Your task to perform on an android device: choose inbox layout in the gmail app Image 0: 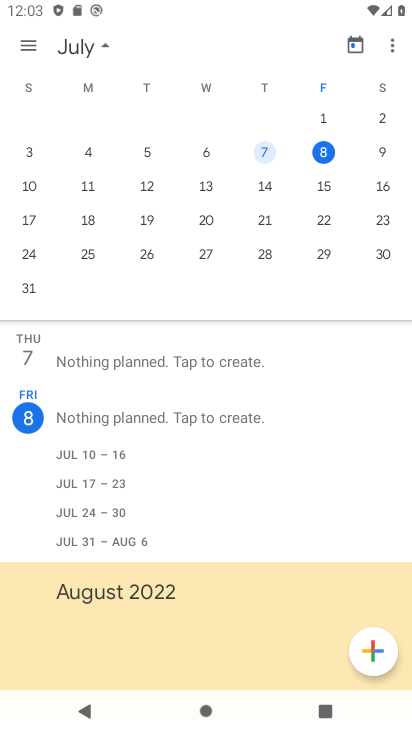
Step 0: press home button
Your task to perform on an android device: choose inbox layout in the gmail app Image 1: 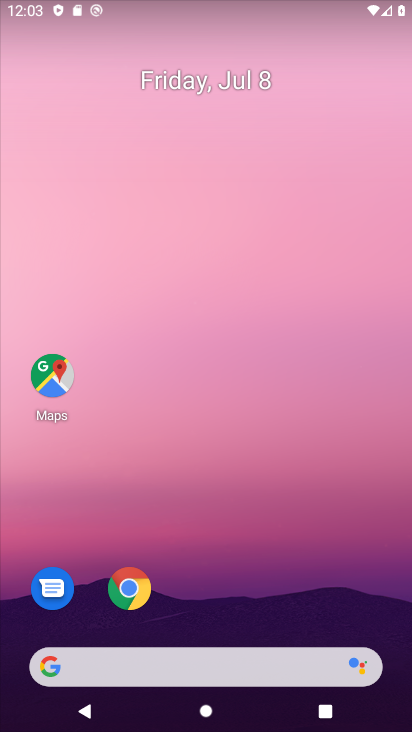
Step 1: drag from (166, 355) to (213, 59)
Your task to perform on an android device: choose inbox layout in the gmail app Image 2: 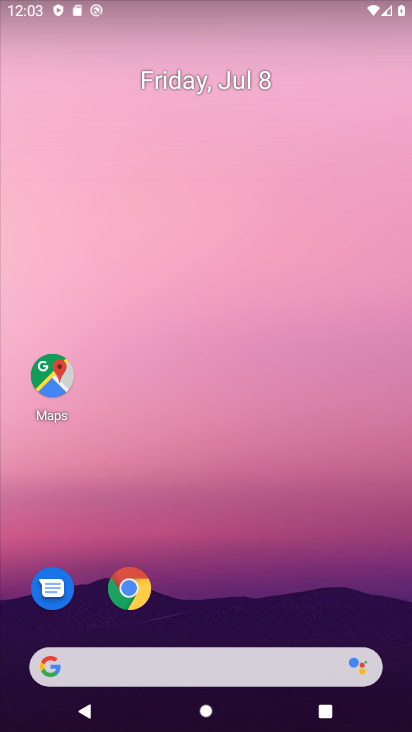
Step 2: drag from (189, 469) to (189, 57)
Your task to perform on an android device: choose inbox layout in the gmail app Image 3: 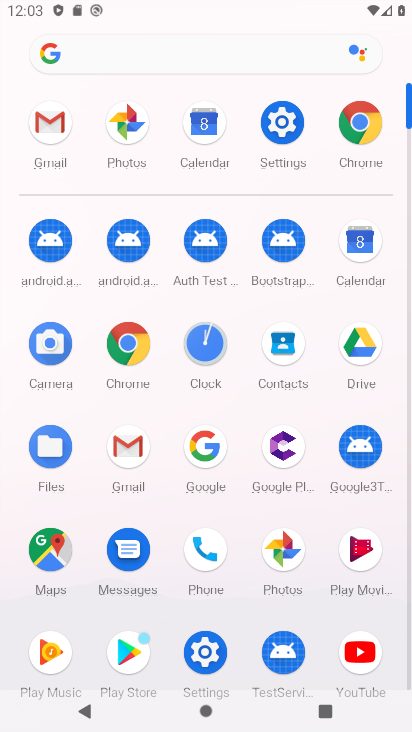
Step 3: click (51, 125)
Your task to perform on an android device: choose inbox layout in the gmail app Image 4: 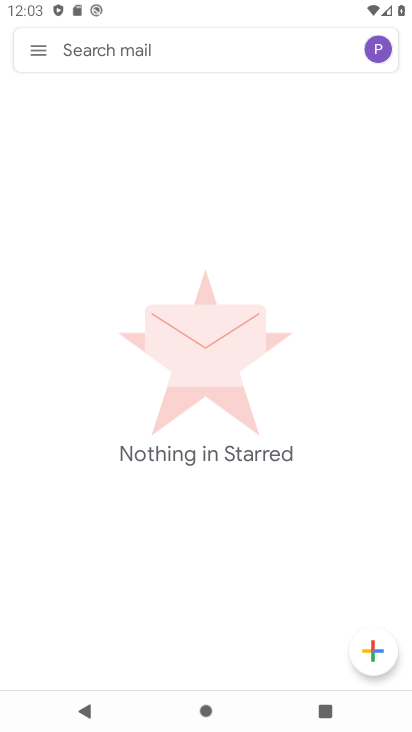
Step 4: click (32, 48)
Your task to perform on an android device: choose inbox layout in the gmail app Image 5: 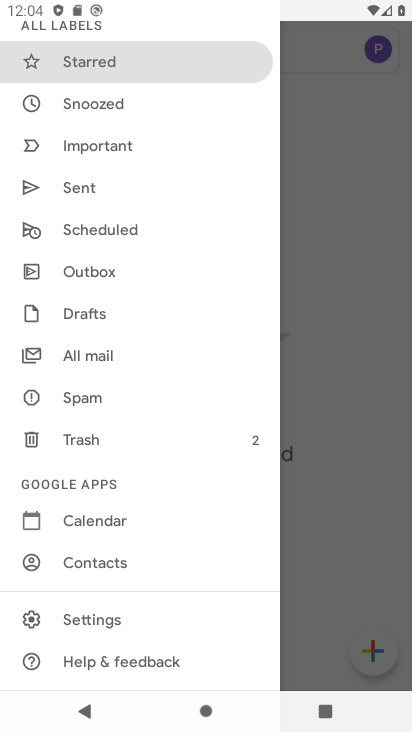
Step 5: click (106, 622)
Your task to perform on an android device: choose inbox layout in the gmail app Image 6: 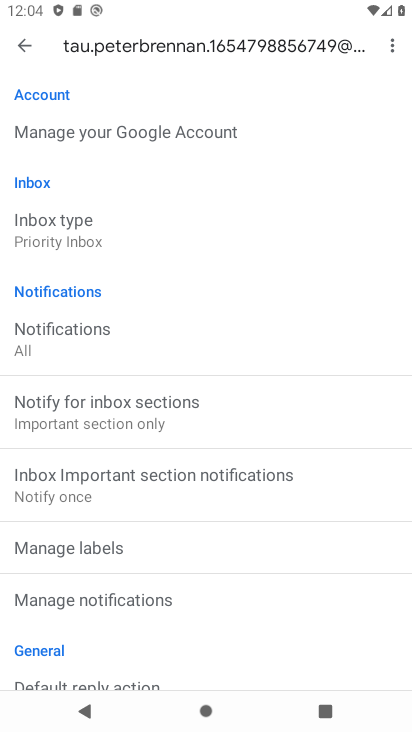
Step 6: click (58, 216)
Your task to perform on an android device: choose inbox layout in the gmail app Image 7: 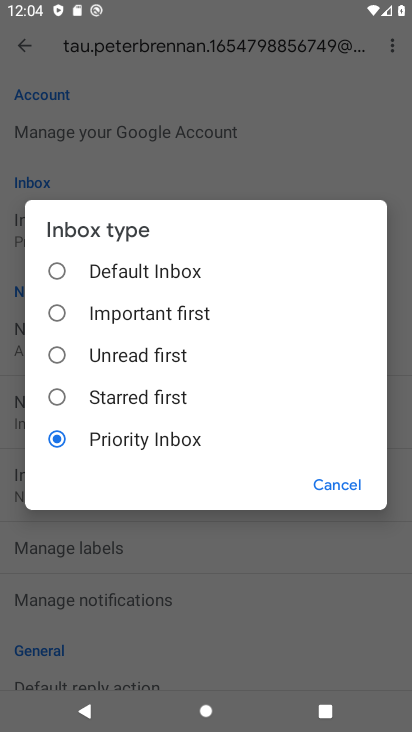
Step 7: click (54, 273)
Your task to perform on an android device: choose inbox layout in the gmail app Image 8: 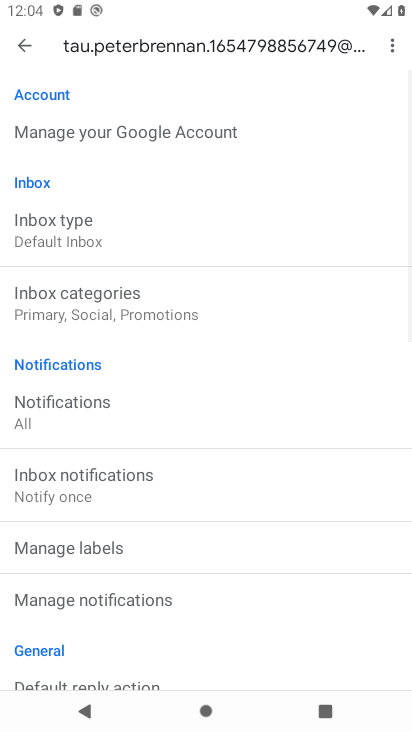
Step 8: task complete